Your task to perform on an android device: Search for the best rated vacuums on Target Image 0: 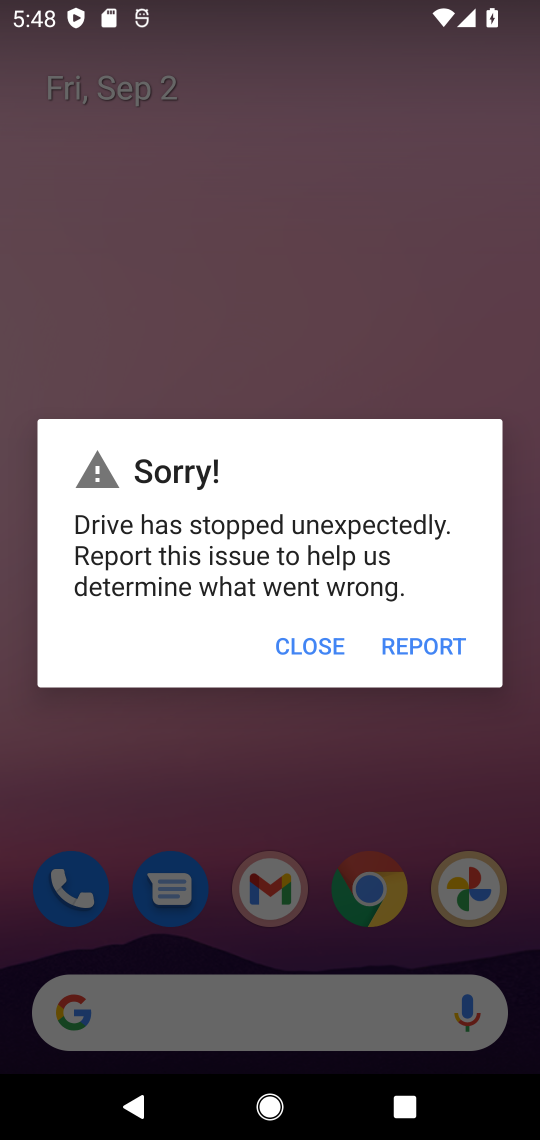
Step 0: click (300, 640)
Your task to perform on an android device: Search for the best rated vacuums on Target Image 1: 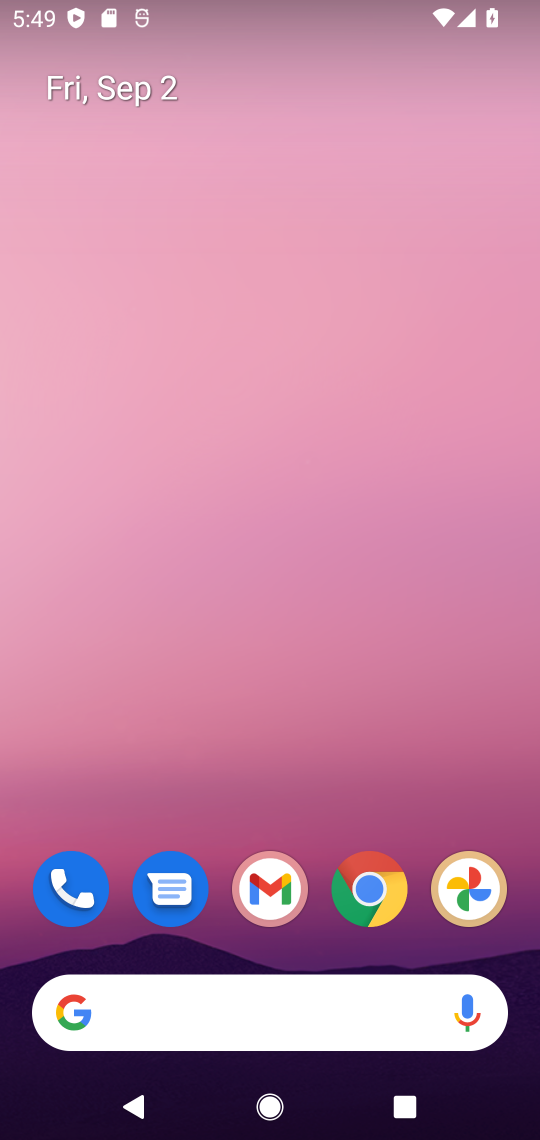
Step 1: click (302, 1025)
Your task to perform on an android device: Search for the best rated vacuums on Target Image 2: 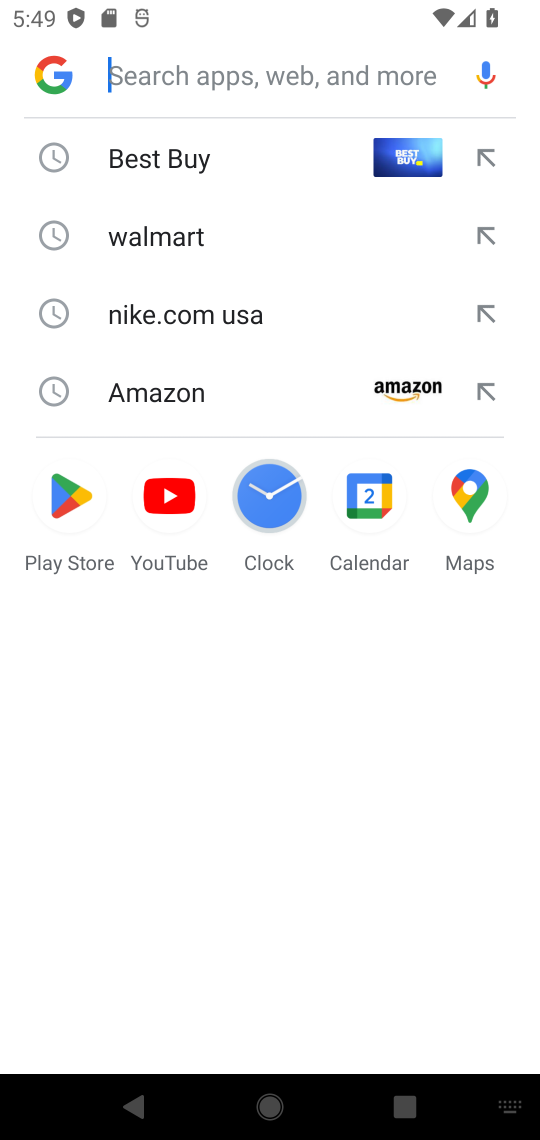
Step 2: type "Target"
Your task to perform on an android device: Search for the best rated vacuums on Target Image 3: 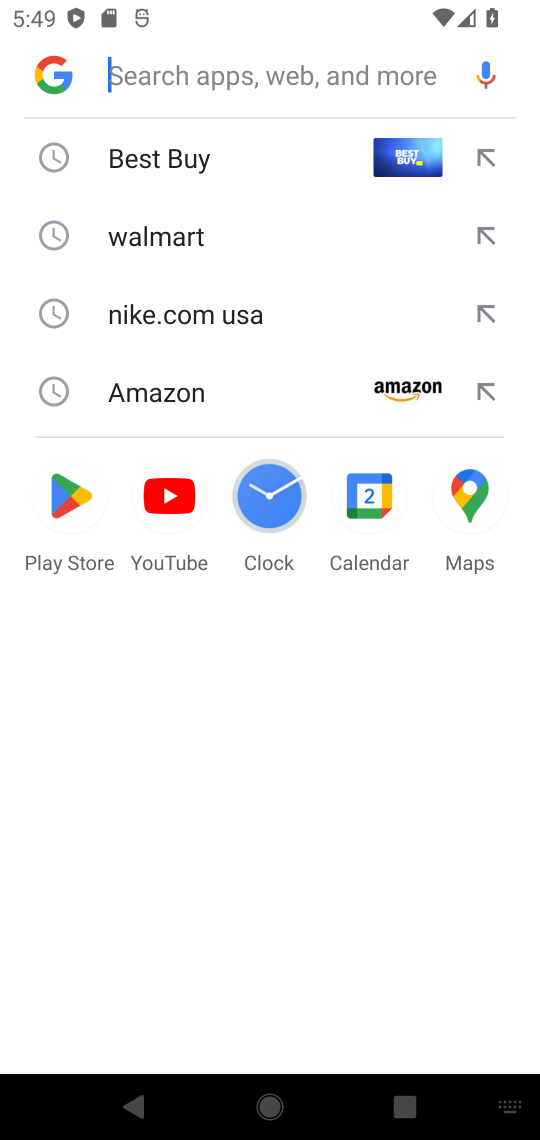
Step 3: click (197, 170)
Your task to perform on an android device: Search for the best rated vacuums on Target Image 4: 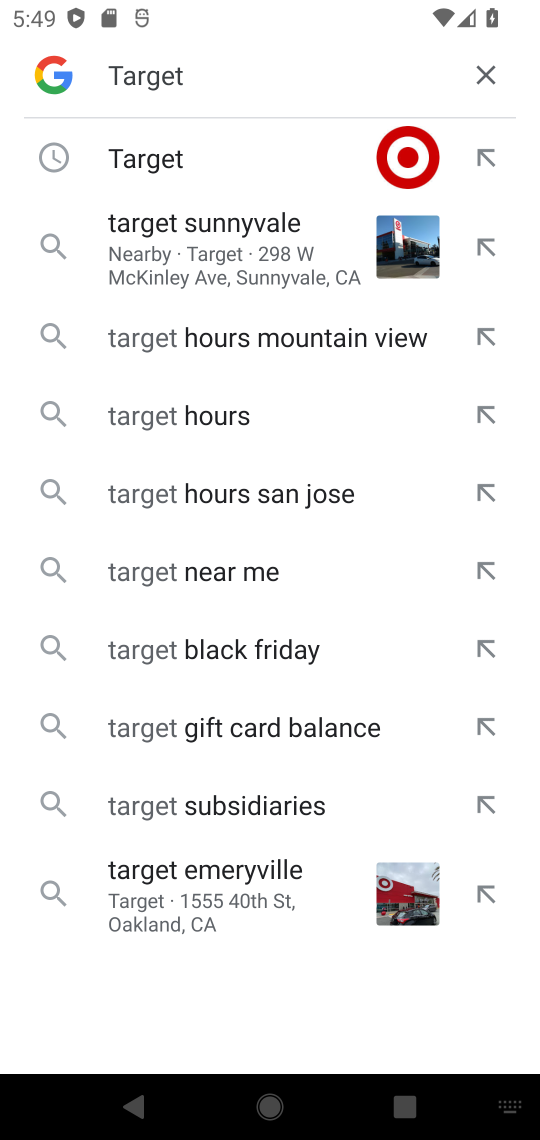
Step 4: click (145, 174)
Your task to perform on an android device: Search for the best rated vacuums on Target Image 5: 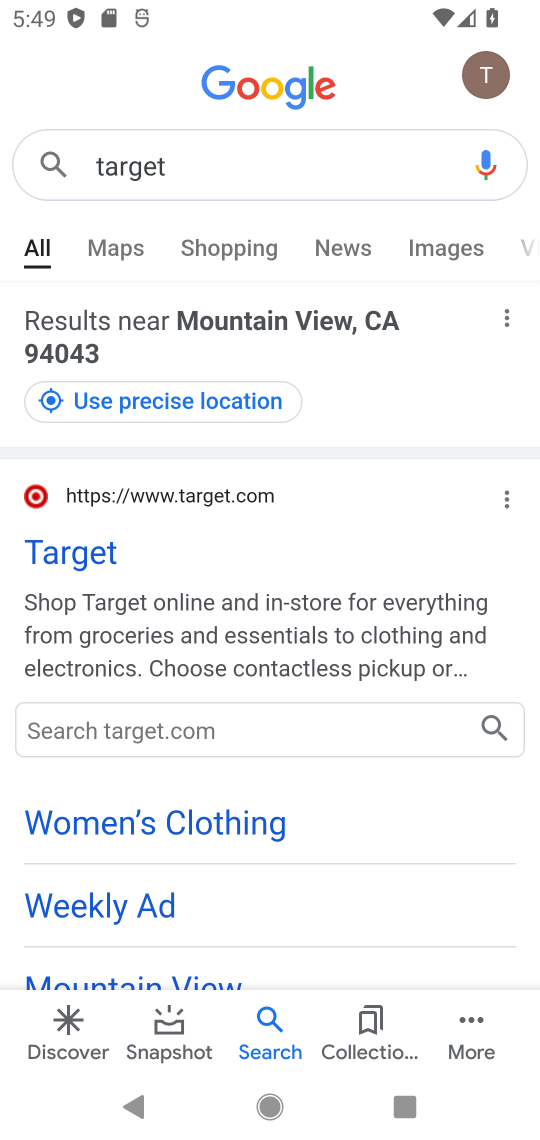
Step 5: click (88, 550)
Your task to perform on an android device: Search for the best rated vacuums on Target Image 6: 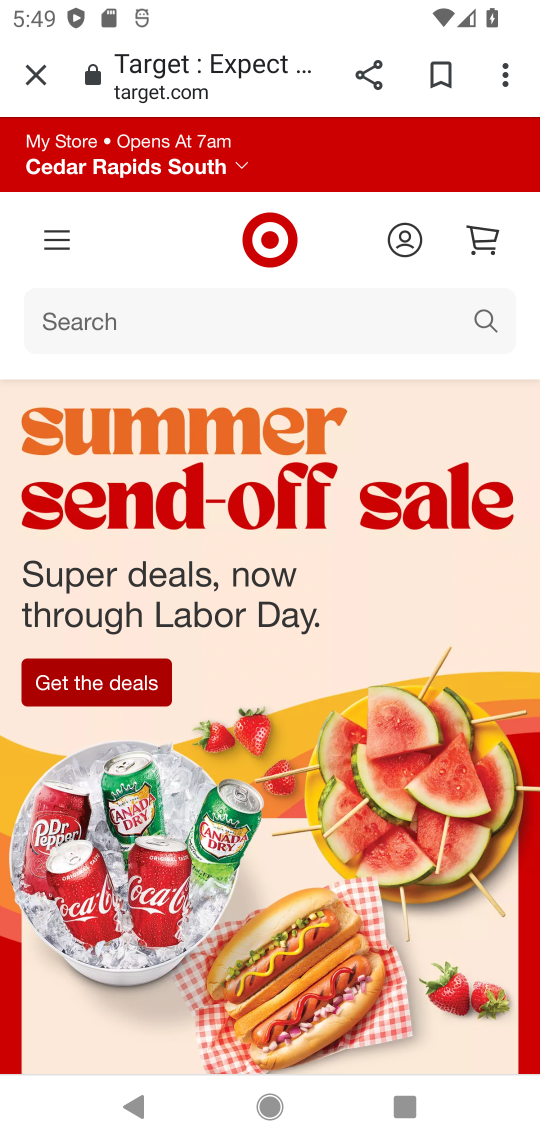
Step 6: click (167, 310)
Your task to perform on an android device: Search for the best rated vacuums on Target Image 7: 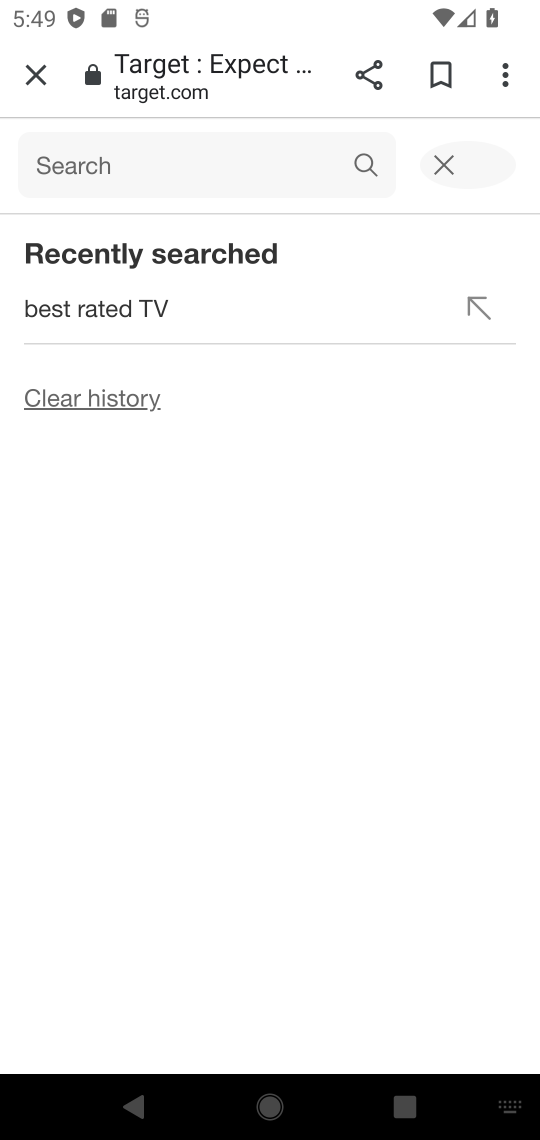
Step 7: type "best rated vacuums"
Your task to perform on an android device: Search for the best rated vacuums on Target Image 8: 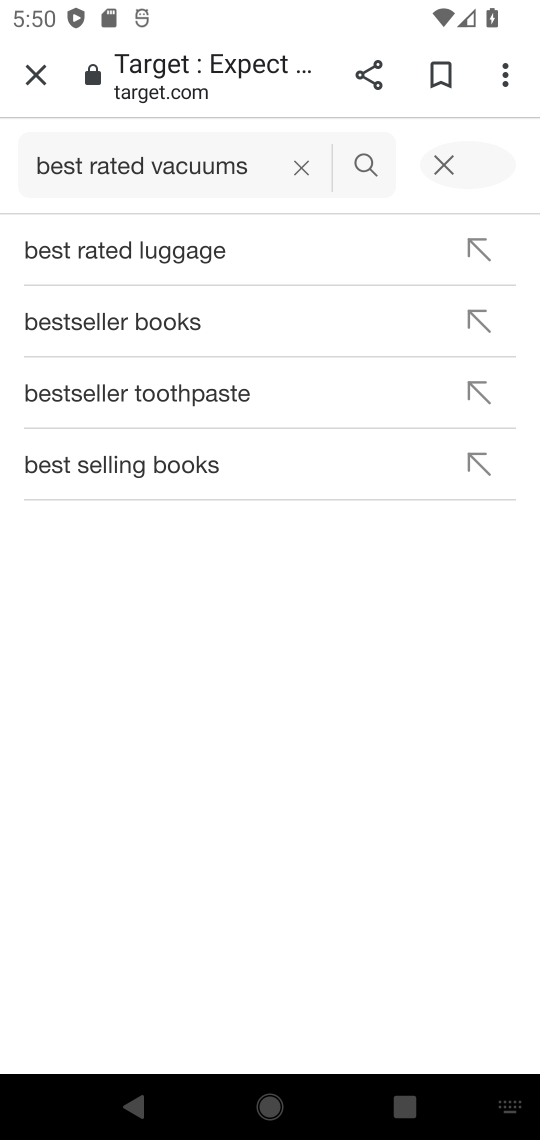
Step 8: click (368, 169)
Your task to perform on an android device: Search for the best rated vacuums on Target Image 9: 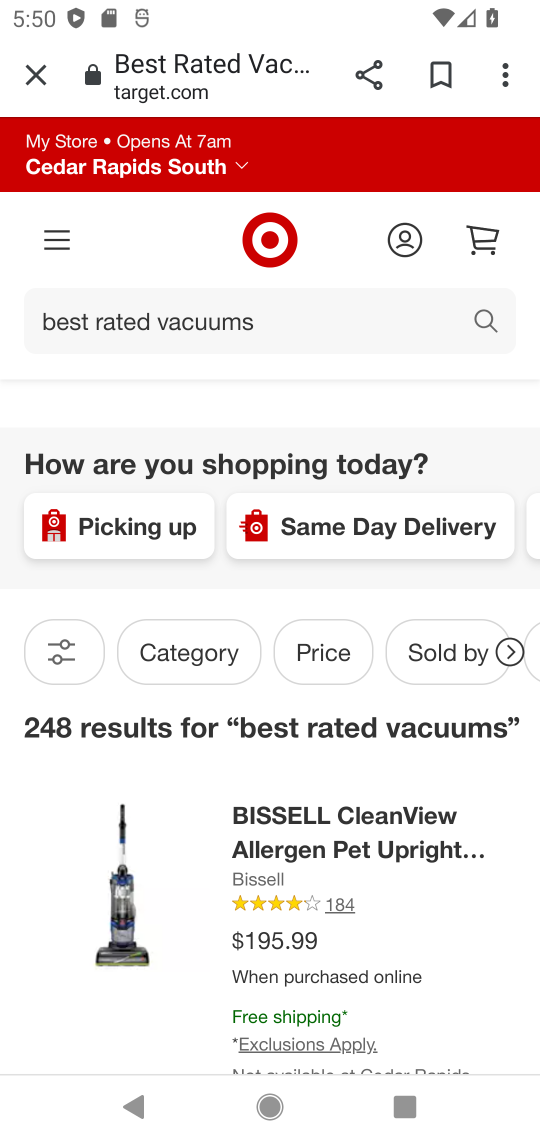
Step 9: drag from (390, 895) to (357, 273)
Your task to perform on an android device: Search for the best rated vacuums on Target Image 10: 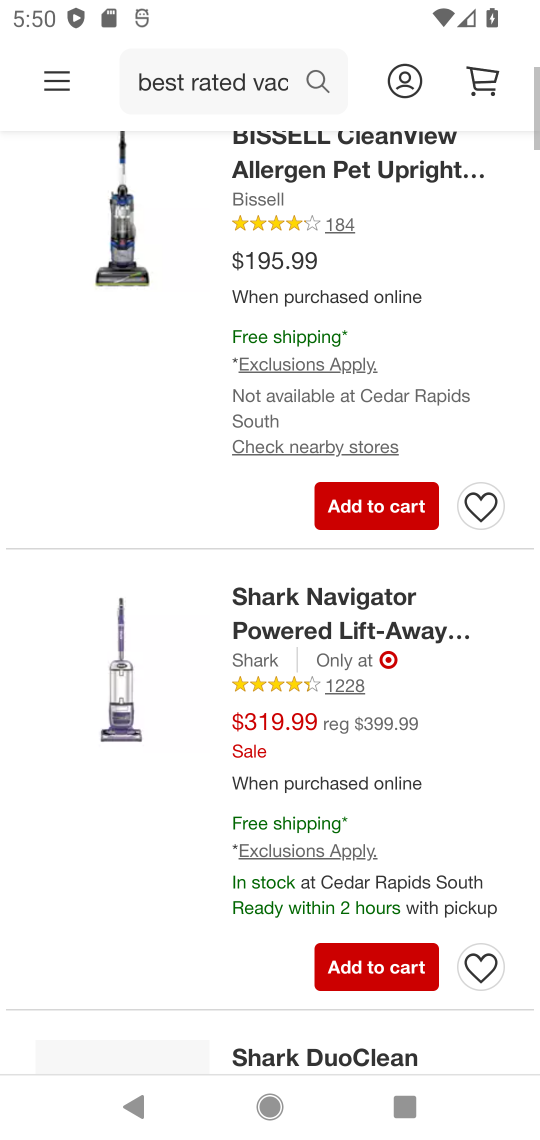
Step 10: drag from (398, 754) to (402, 327)
Your task to perform on an android device: Search for the best rated vacuums on Target Image 11: 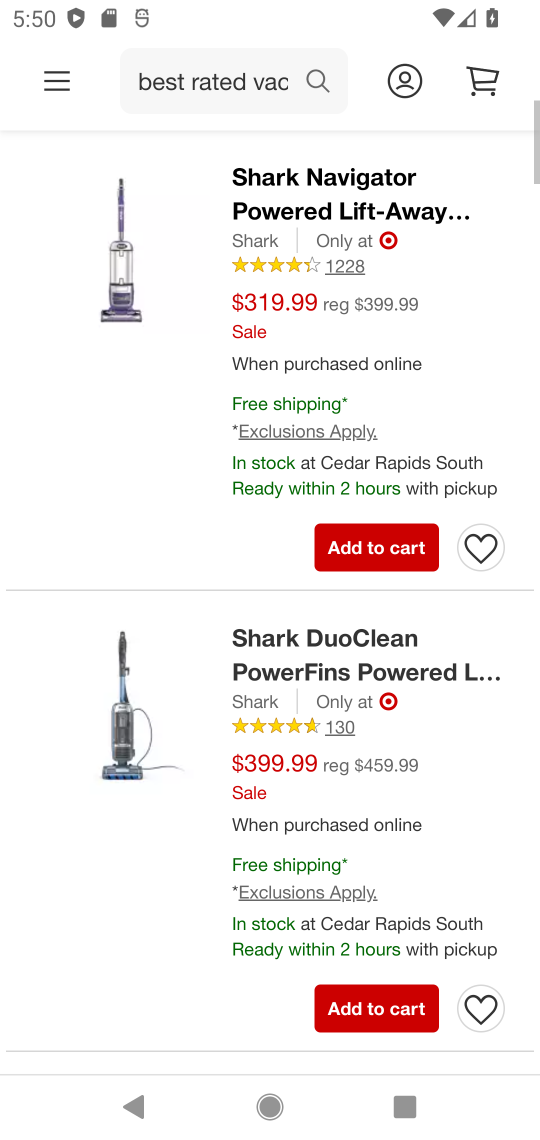
Step 11: drag from (429, 655) to (452, 603)
Your task to perform on an android device: Search for the best rated vacuums on Target Image 12: 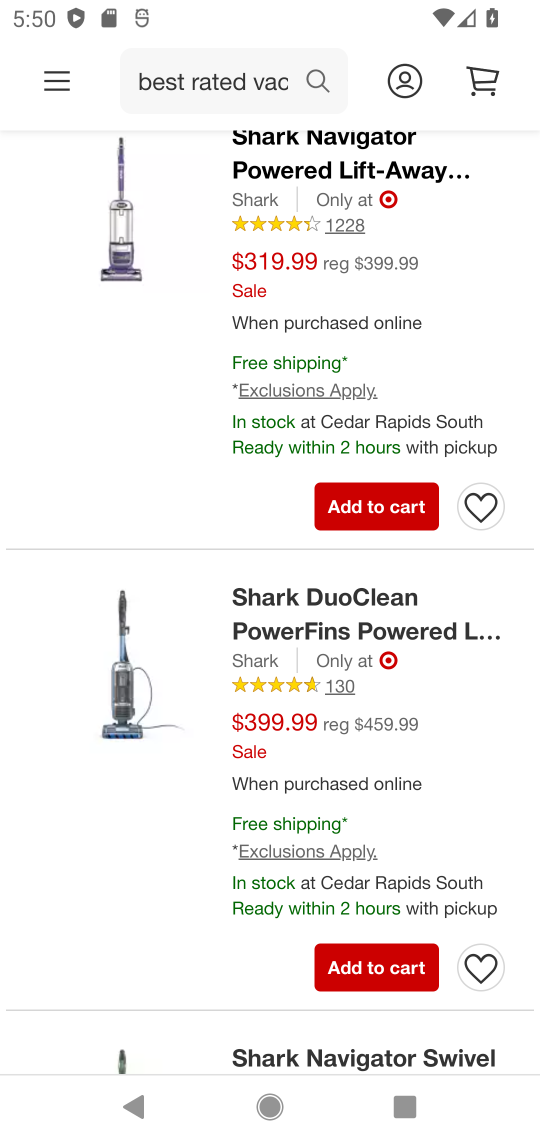
Step 12: click (360, 608)
Your task to perform on an android device: Search for the best rated vacuums on Target Image 13: 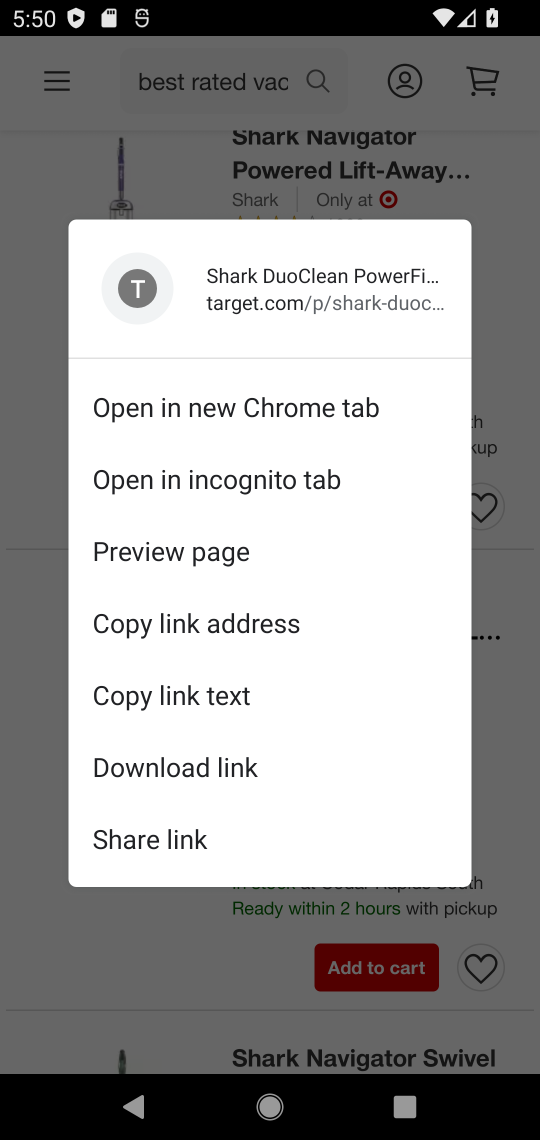
Step 13: click (493, 566)
Your task to perform on an android device: Search for the best rated vacuums on Target Image 14: 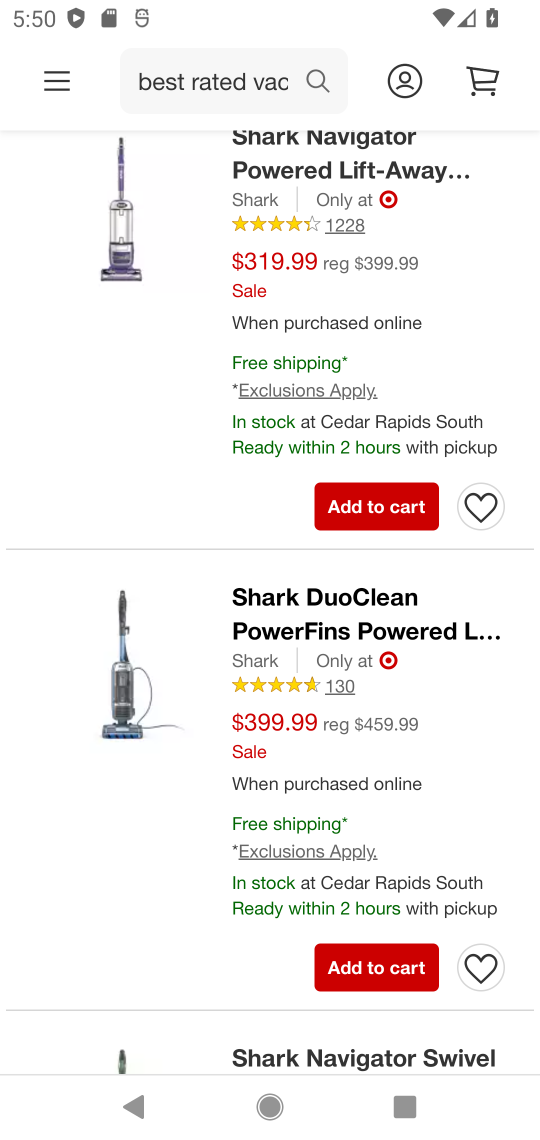
Step 14: click (341, 637)
Your task to perform on an android device: Search for the best rated vacuums on Target Image 15: 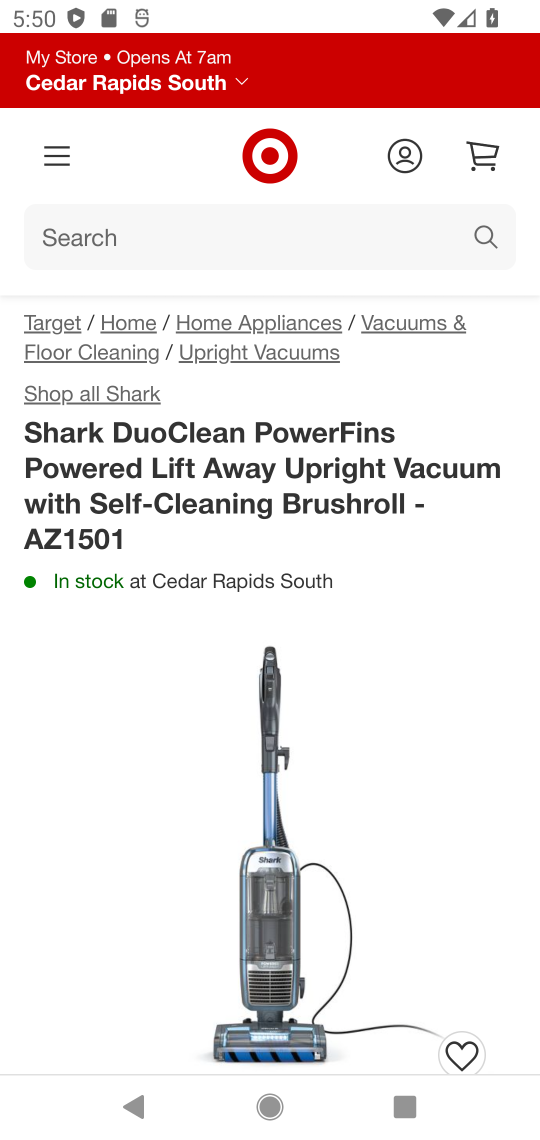
Step 15: task complete